Your task to perform on an android device: all mails in gmail Image 0: 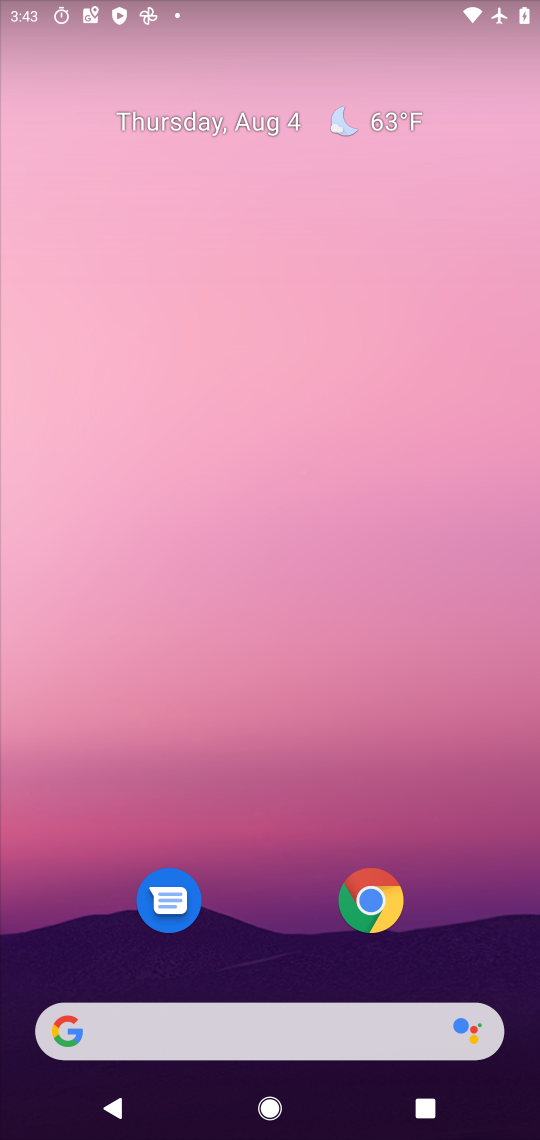
Step 0: drag from (515, 985) to (382, 17)
Your task to perform on an android device: all mails in gmail Image 1: 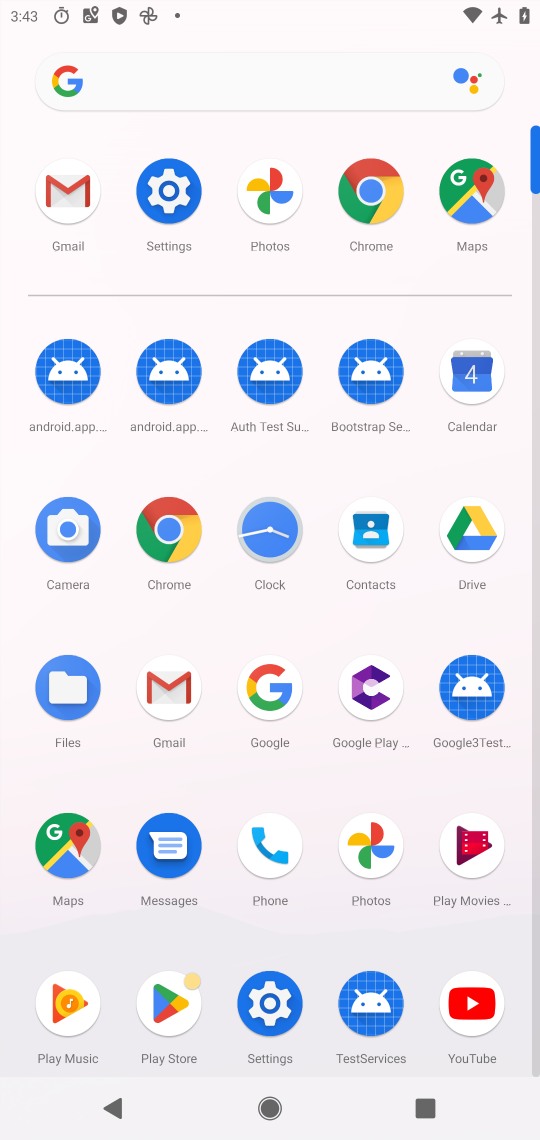
Step 1: click (55, 186)
Your task to perform on an android device: all mails in gmail Image 2: 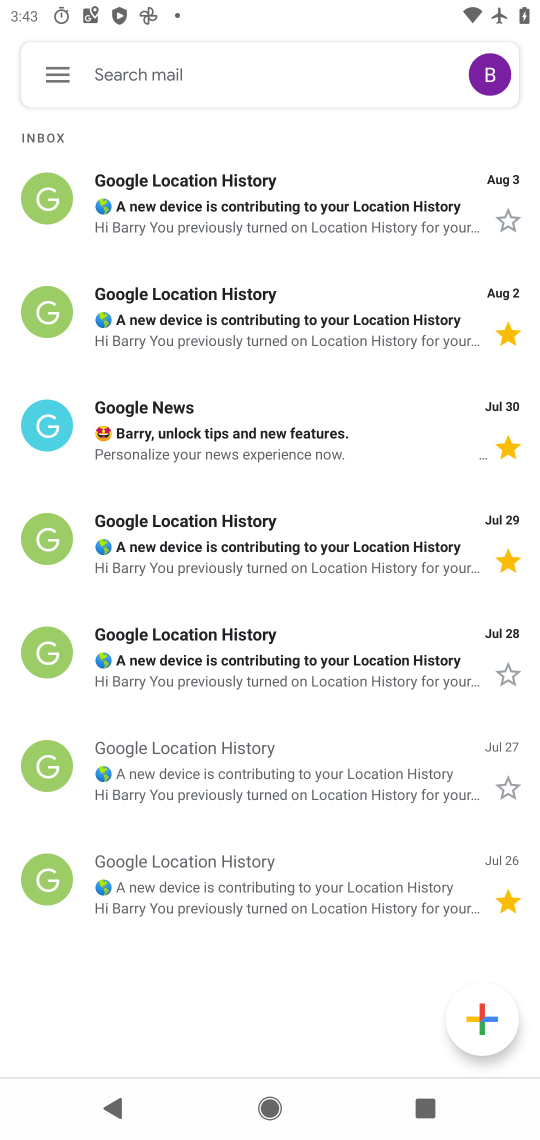
Step 2: click (71, 75)
Your task to perform on an android device: all mails in gmail Image 3: 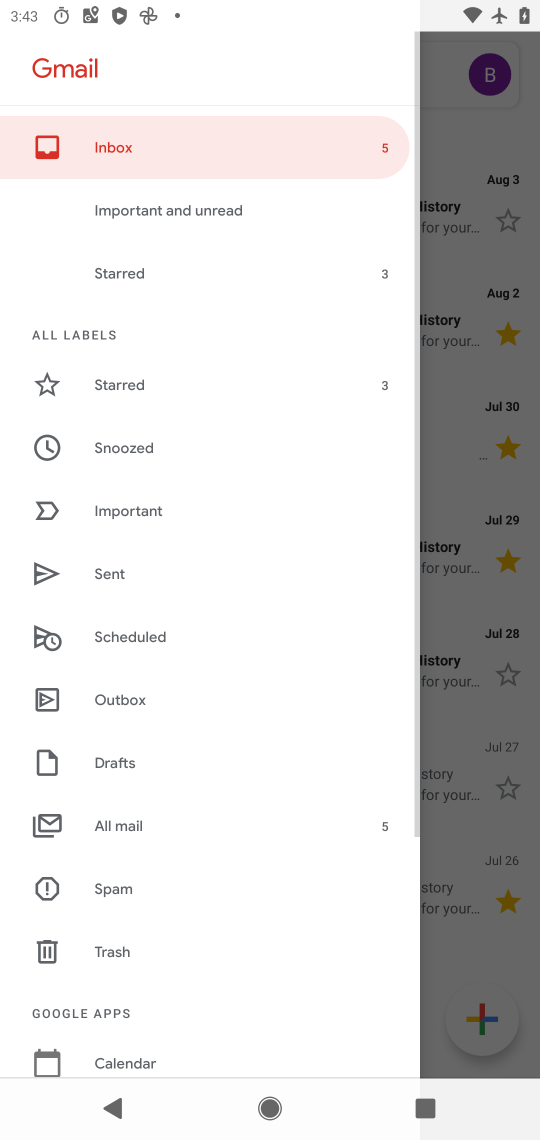
Step 3: click (162, 824)
Your task to perform on an android device: all mails in gmail Image 4: 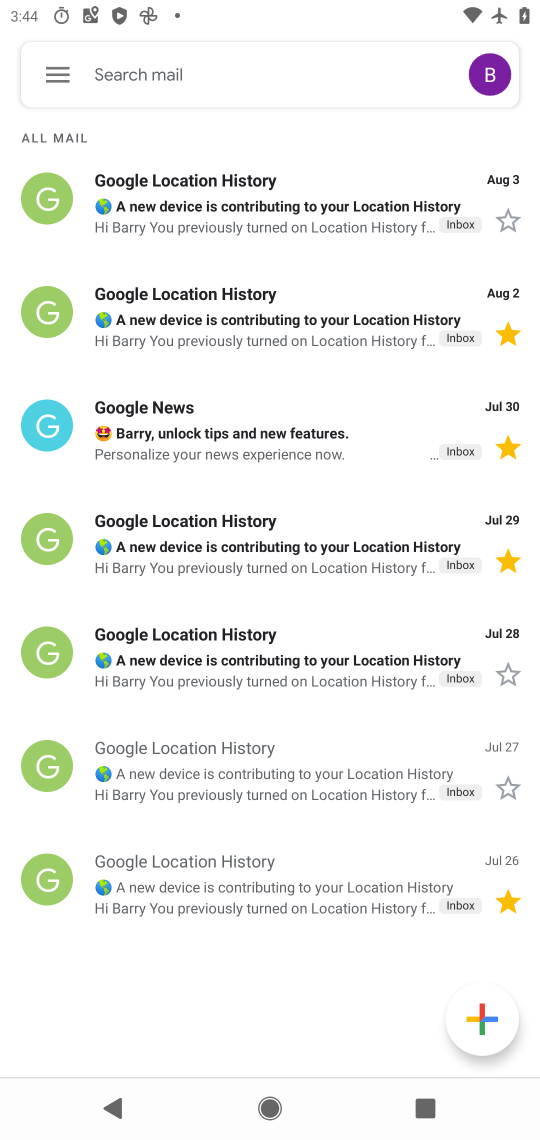
Step 4: task complete